Your task to perform on an android device: Open Yahoo.com Image 0: 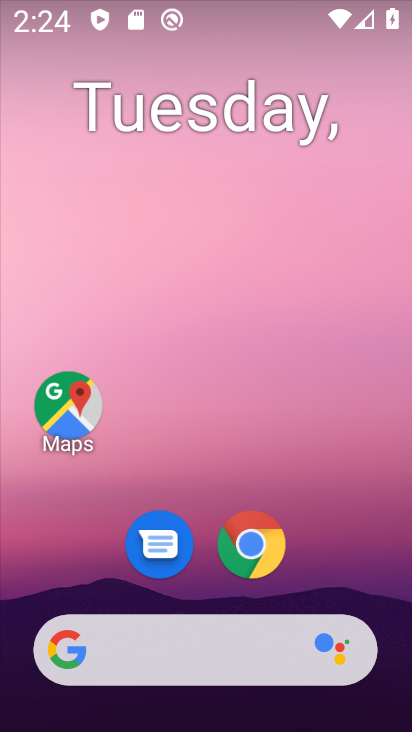
Step 0: drag from (317, 480) to (248, 48)
Your task to perform on an android device: Open Yahoo.com Image 1: 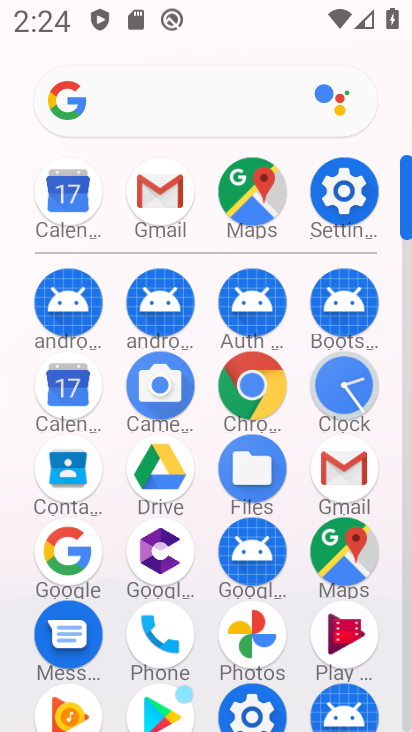
Step 1: click (257, 374)
Your task to perform on an android device: Open Yahoo.com Image 2: 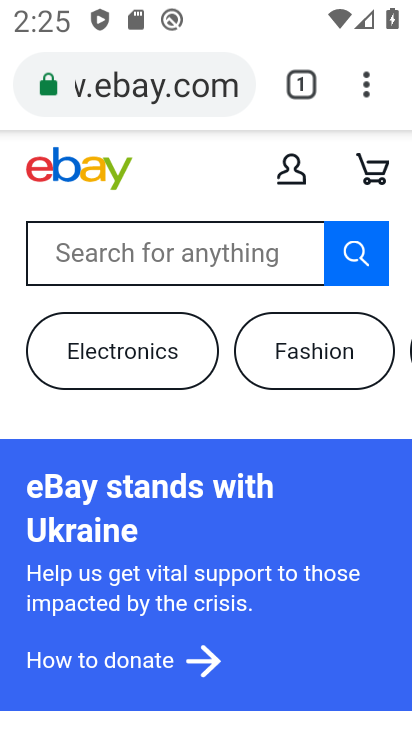
Step 2: click (158, 79)
Your task to perform on an android device: Open Yahoo.com Image 3: 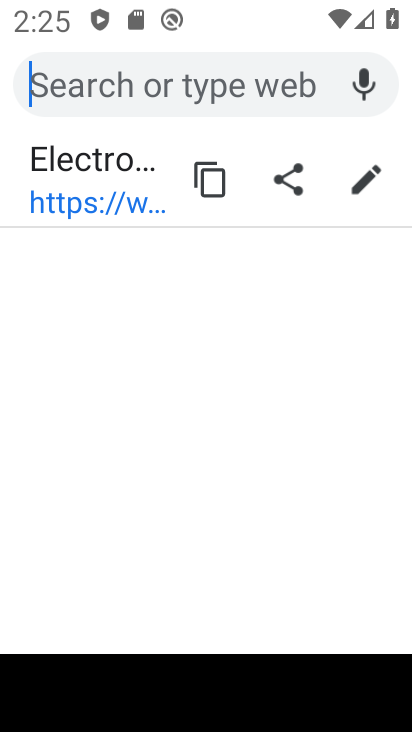
Step 3: type "Yahoo.com"
Your task to perform on an android device: Open Yahoo.com Image 4: 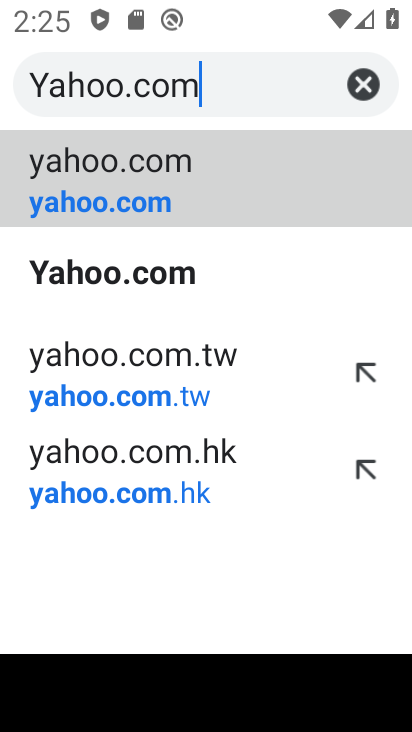
Step 4: type ""
Your task to perform on an android device: Open Yahoo.com Image 5: 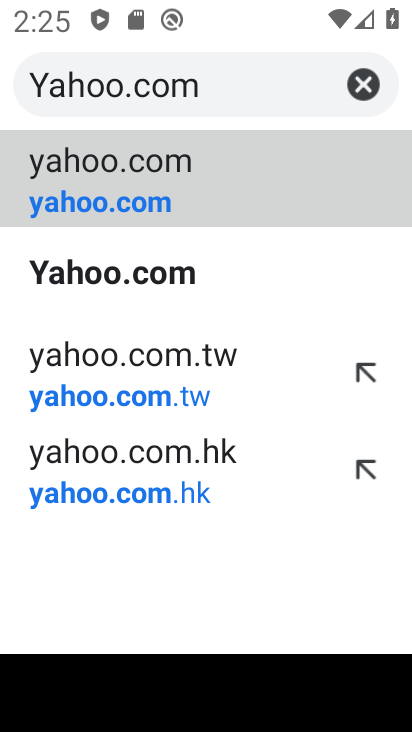
Step 5: click (212, 189)
Your task to perform on an android device: Open Yahoo.com Image 6: 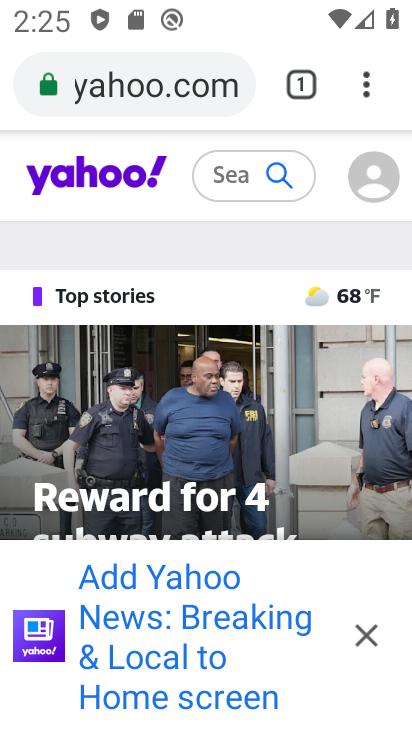
Step 6: click (357, 641)
Your task to perform on an android device: Open Yahoo.com Image 7: 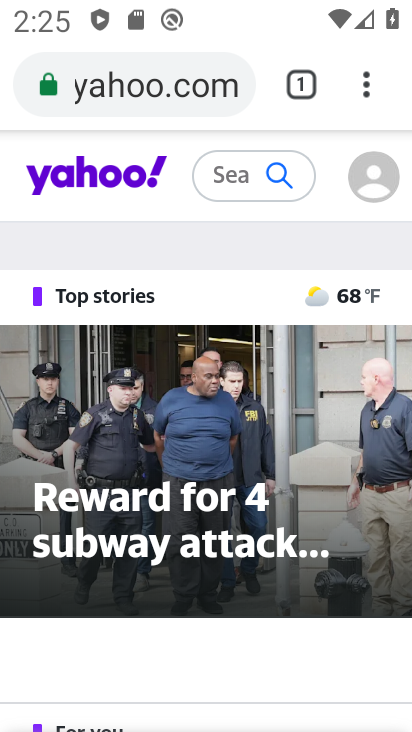
Step 7: task complete